Your task to perform on an android device: find snoozed emails in the gmail app Image 0: 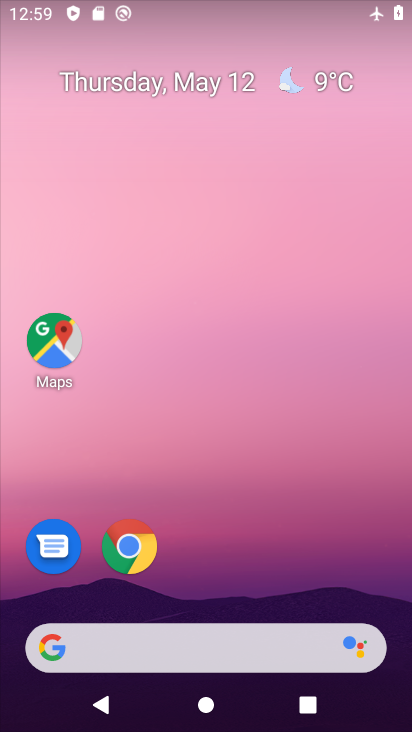
Step 0: drag from (250, 673) to (318, 249)
Your task to perform on an android device: find snoozed emails in the gmail app Image 1: 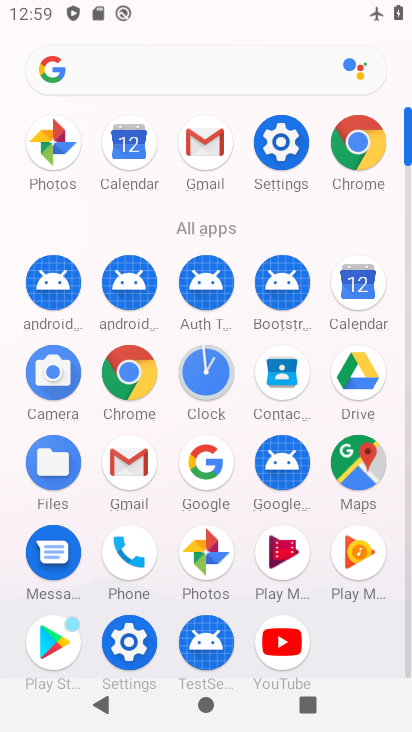
Step 1: click (134, 465)
Your task to perform on an android device: find snoozed emails in the gmail app Image 2: 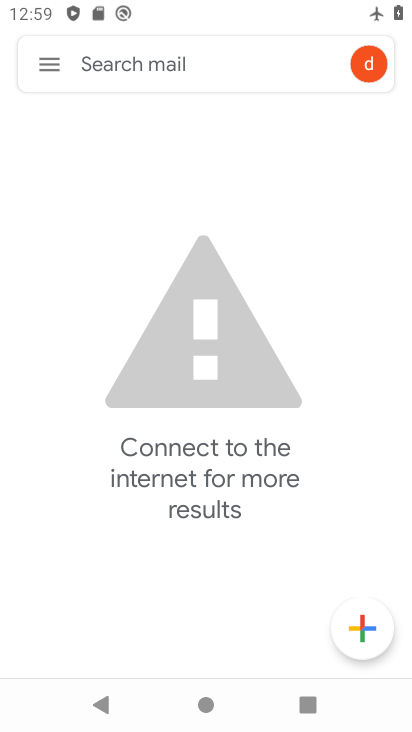
Step 2: click (36, 63)
Your task to perform on an android device: find snoozed emails in the gmail app Image 3: 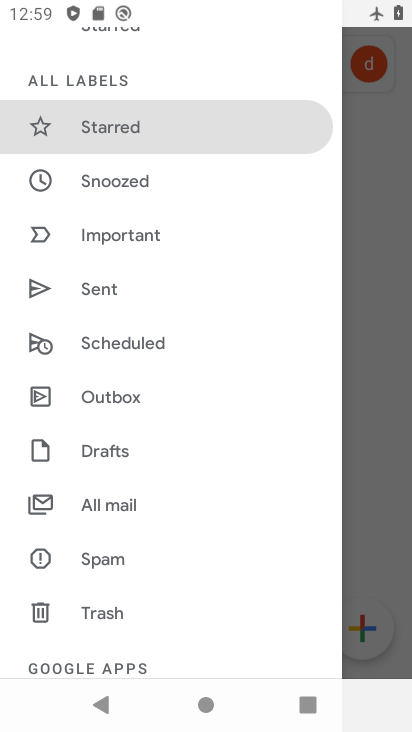
Step 3: click (153, 188)
Your task to perform on an android device: find snoozed emails in the gmail app Image 4: 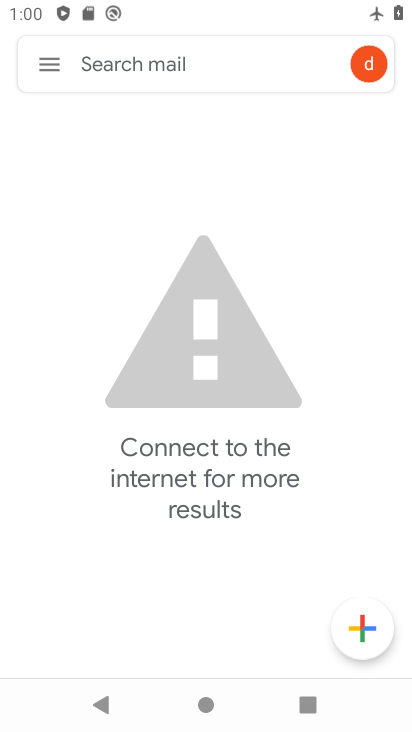
Step 4: click (47, 61)
Your task to perform on an android device: find snoozed emails in the gmail app Image 5: 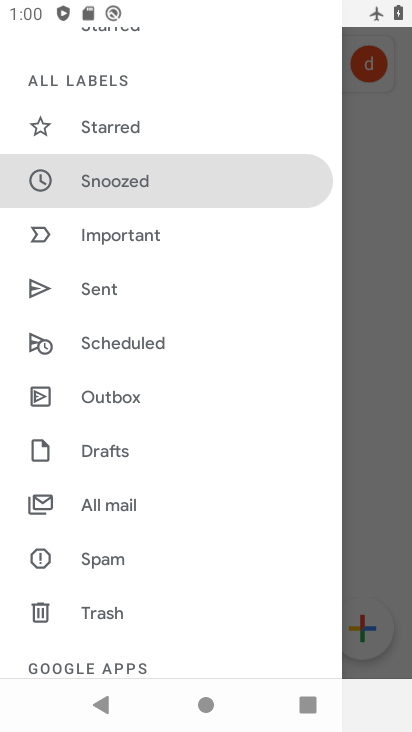
Step 5: click (142, 192)
Your task to perform on an android device: find snoozed emails in the gmail app Image 6: 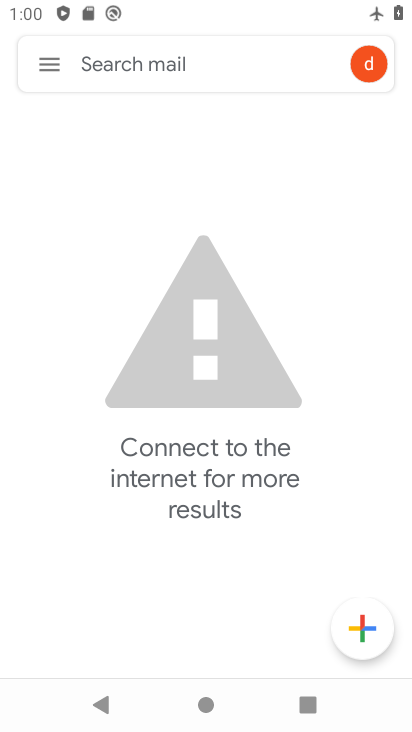
Step 6: task complete